Your task to perform on an android device: turn on improve location accuracy Image 0: 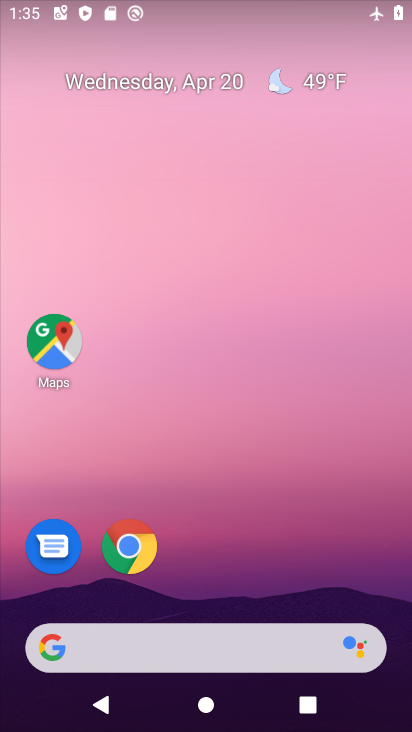
Step 0: drag from (283, 566) to (329, 218)
Your task to perform on an android device: turn on improve location accuracy Image 1: 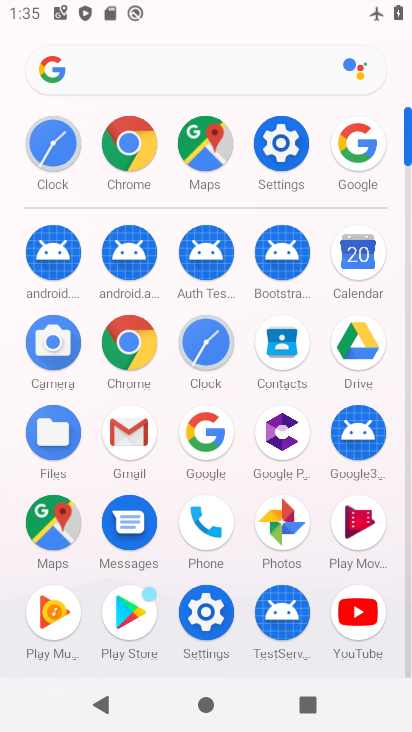
Step 1: click (273, 143)
Your task to perform on an android device: turn on improve location accuracy Image 2: 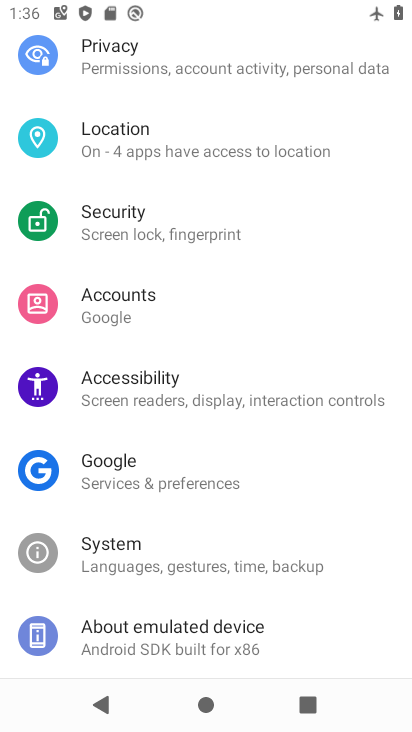
Step 2: click (139, 155)
Your task to perform on an android device: turn on improve location accuracy Image 3: 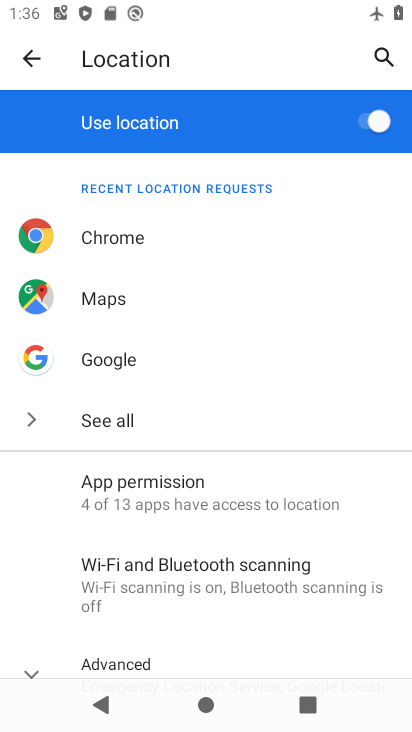
Step 3: drag from (176, 595) to (265, 183)
Your task to perform on an android device: turn on improve location accuracy Image 4: 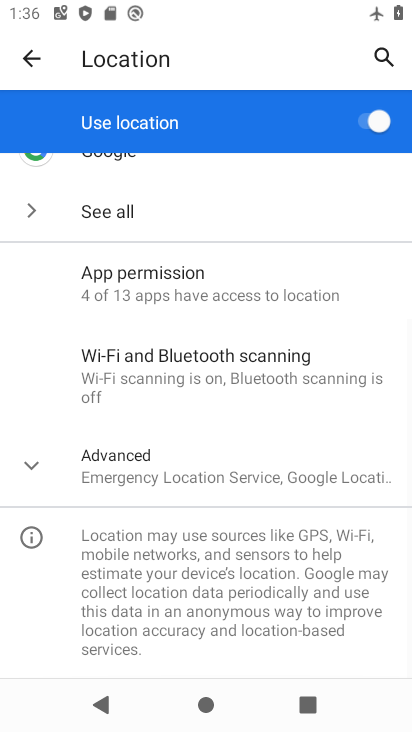
Step 4: click (125, 462)
Your task to perform on an android device: turn on improve location accuracy Image 5: 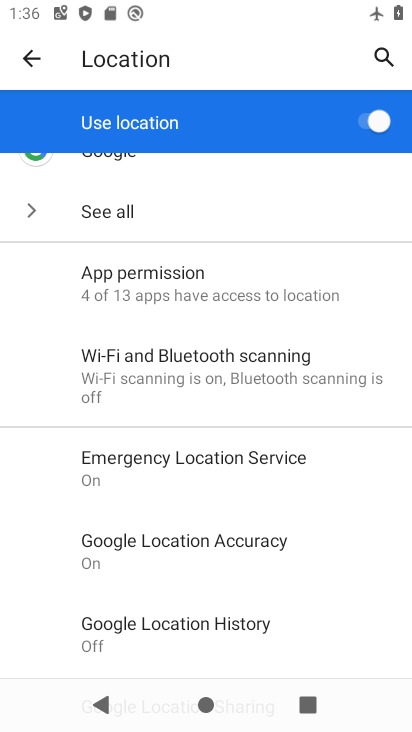
Step 5: drag from (210, 609) to (255, 466)
Your task to perform on an android device: turn on improve location accuracy Image 6: 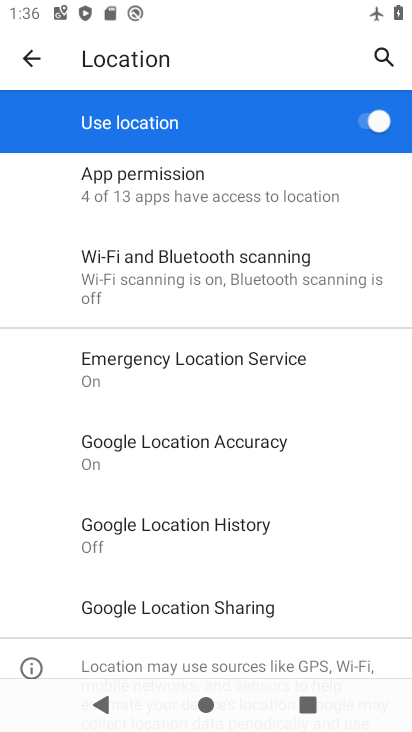
Step 6: click (237, 450)
Your task to perform on an android device: turn on improve location accuracy Image 7: 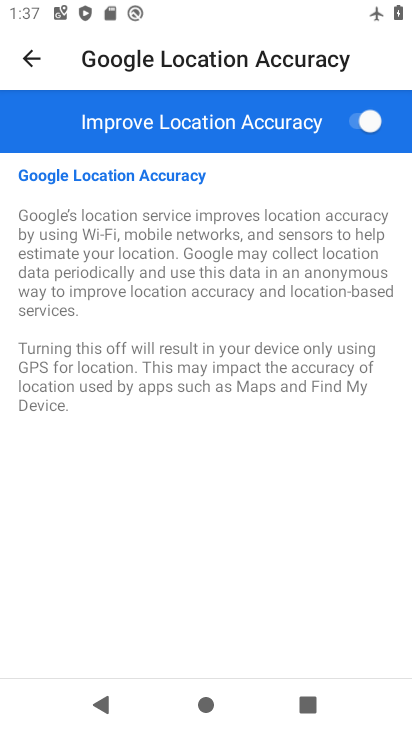
Step 7: task complete